Your task to perform on an android device: Go to Yahoo.com Image 0: 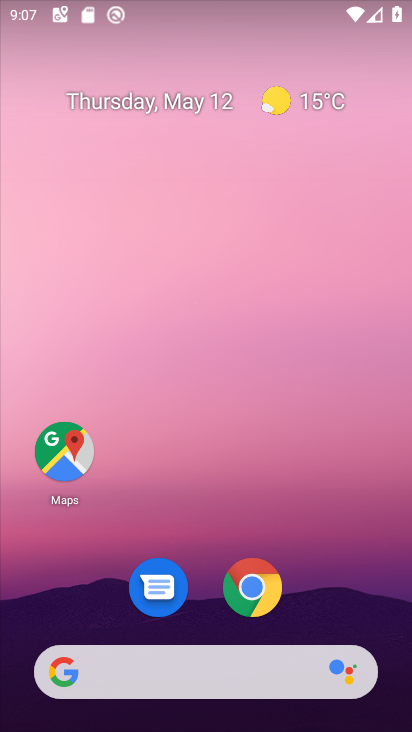
Step 0: click (269, 591)
Your task to perform on an android device: Go to Yahoo.com Image 1: 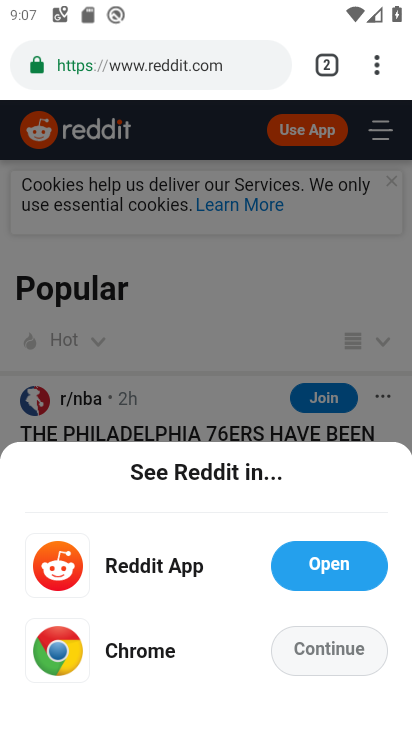
Step 1: press back button
Your task to perform on an android device: Go to Yahoo.com Image 2: 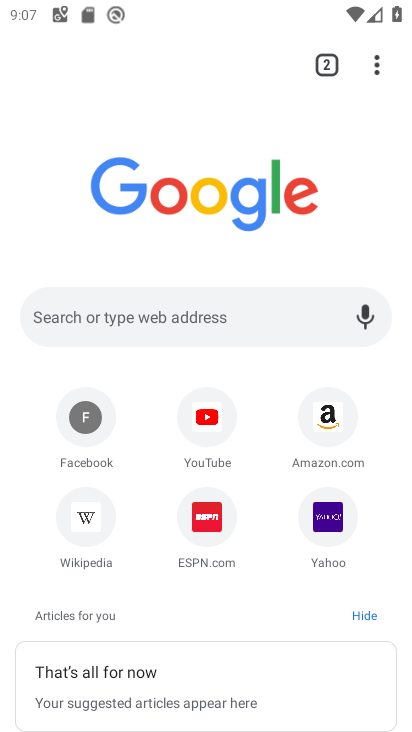
Step 2: click (308, 514)
Your task to perform on an android device: Go to Yahoo.com Image 3: 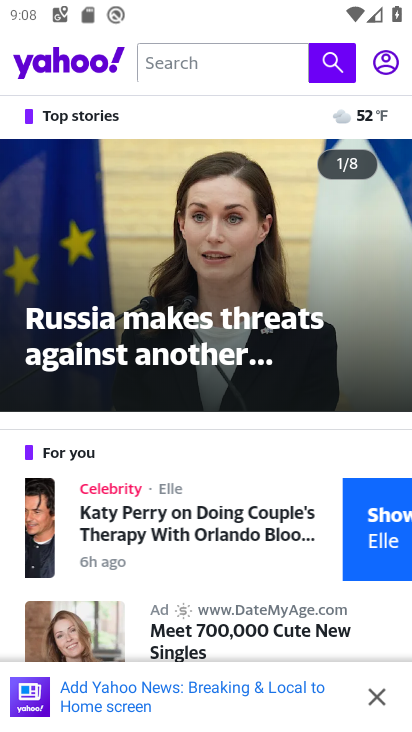
Step 3: task complete